Your task to perform on an android device: check battery use Image 0: 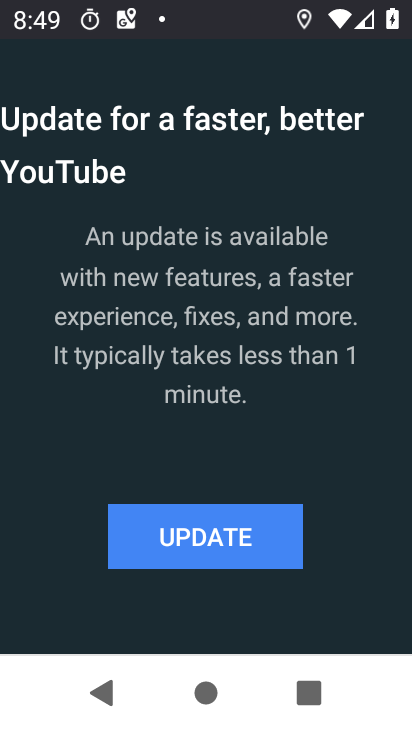
Step 0: press home button
Your task to perform on an android device: check battery use Image 1: 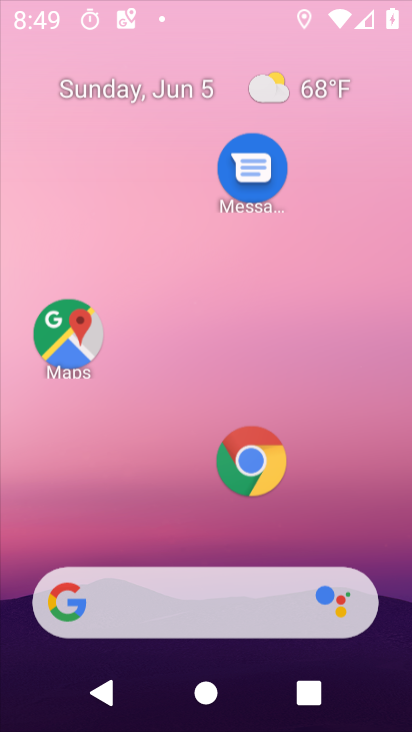
Step 1: drag from (210, 569) to (239, 8)
Your task to perform on an android device: check battery use Image 2: 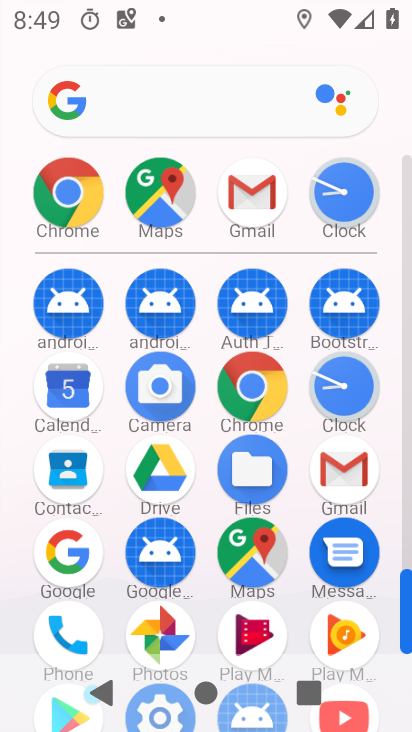
Step 2: drag from (213, 599) to (229, 74)
Your task to perform on an android device: check battery use Image 3: 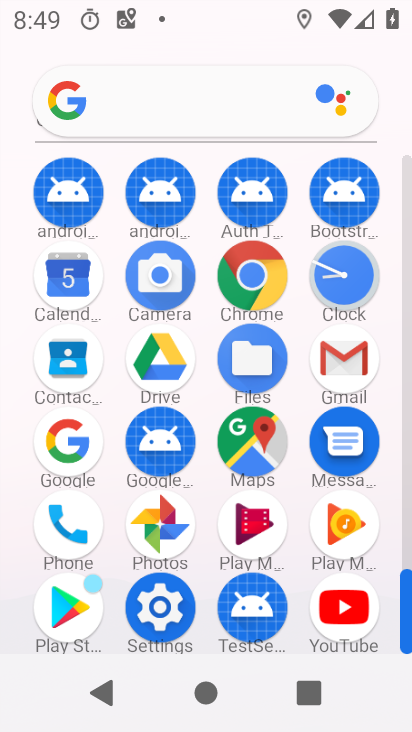
Step 3: click (152, 610)
Your task to perform on an android device: check battery use Image 4: 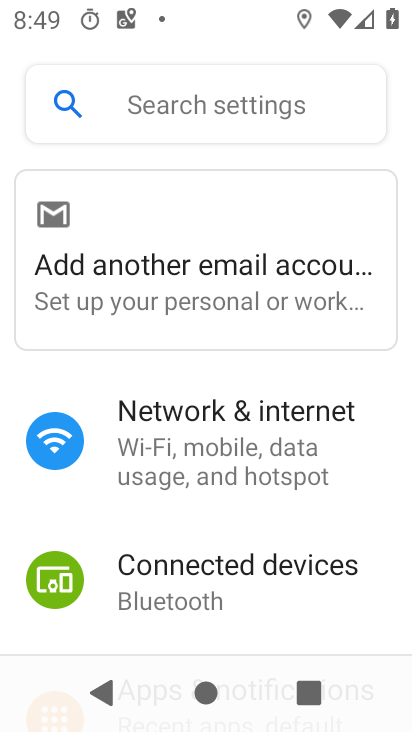
Step 4: drag from (218, 595) to (298, 88)
Your task to perform on an android device: check battery use Image 5: 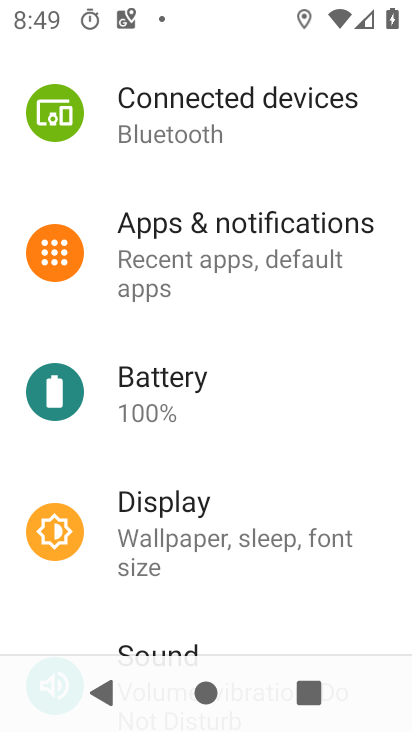
Step 5: drag from (188, 568) to (243, 314)
Your task to perform on an android device: check battery use Image 6: 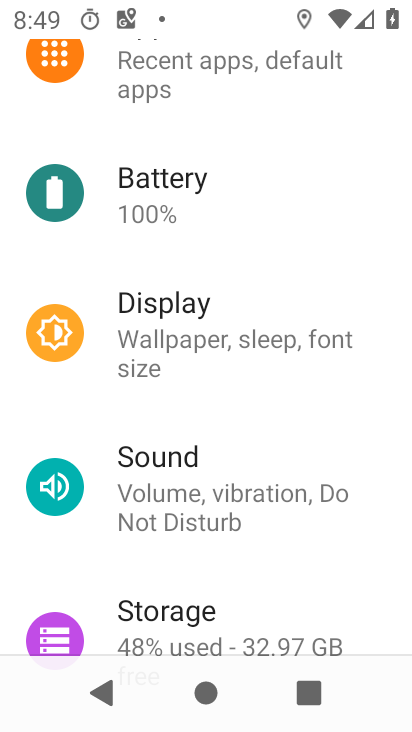
Step 6: click (195, 192)
Your task to perform on an android device: check battery use Image 7: 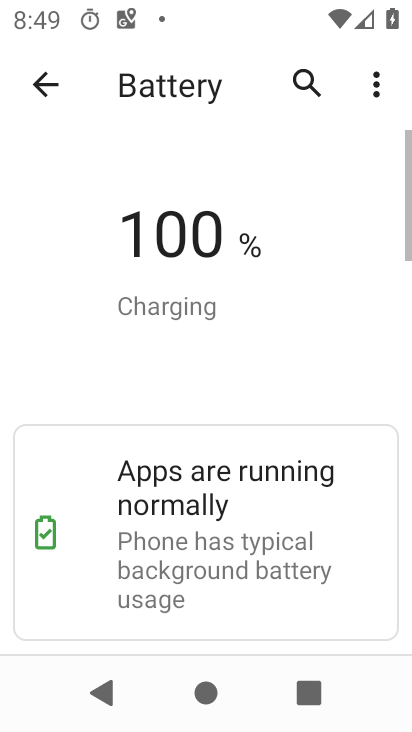
Step 7: click (376, 83)
Your task to perform on an android device: check battery use Image 8: 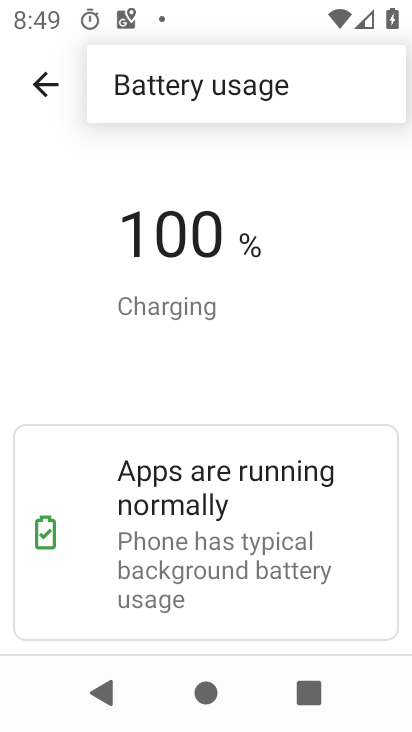
Step 8: click (233, 82)
Your task to perform on an android device: check battery use Image 9: 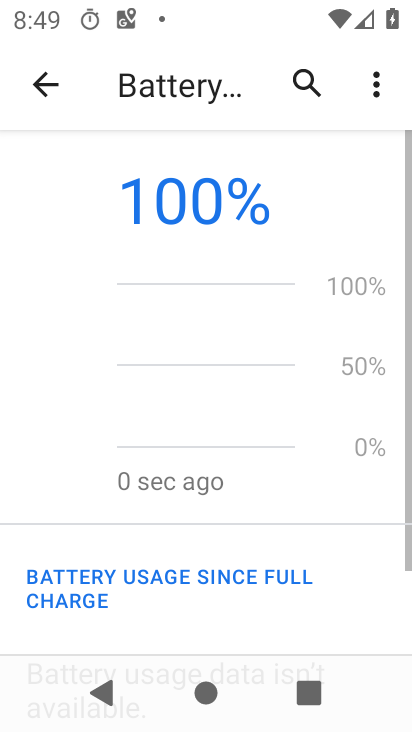
Step 9: task complete